Your task to perform on an android device: toggle show notifications on the lock screen Image 0: 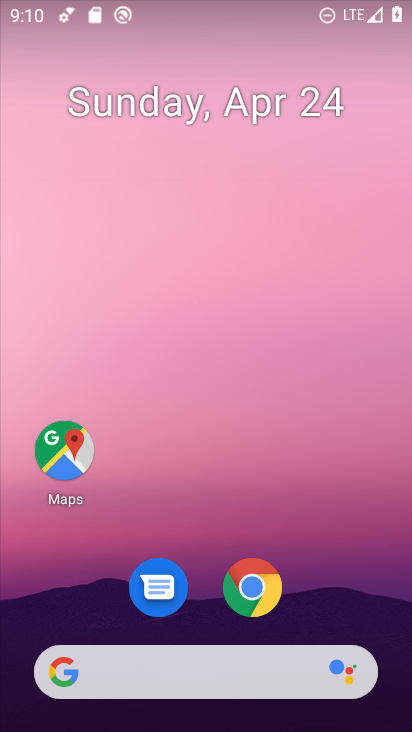
Step 0: drag from (400, 591) to (361, 200)
Your task to perform on an android device: toggle show notifications on the lock screen Image 1: 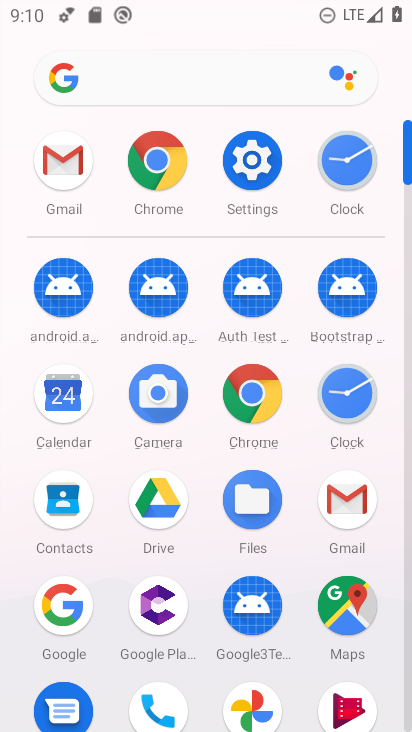
Step 1: click (256, 175)
Your task to perform on an android device: toggle show notifications on the lock screen Image 2: 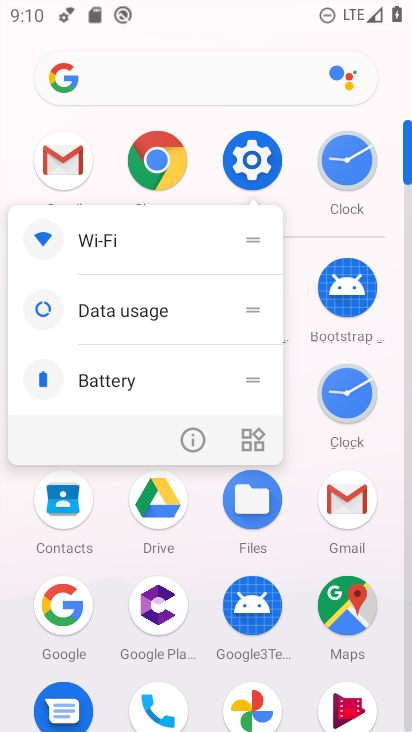
Step 2: click (256, 175)
Your task to perform on an android device: toggle show notifications on the lock screen Image 3: 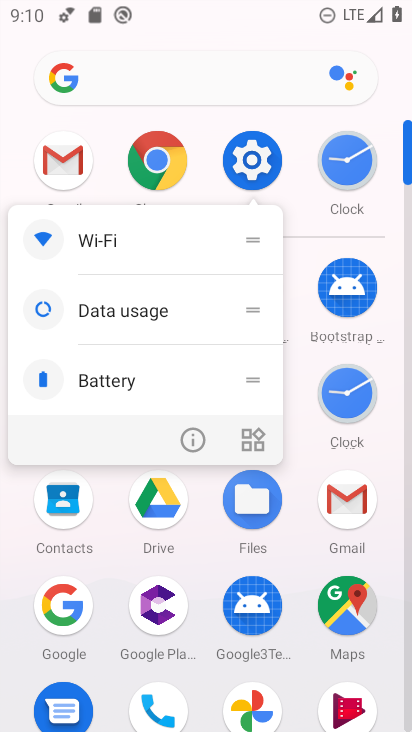
Step 3: click (265, 164)
Your task to perform on an android device: toggle show notifications on the lock screen Image 4: 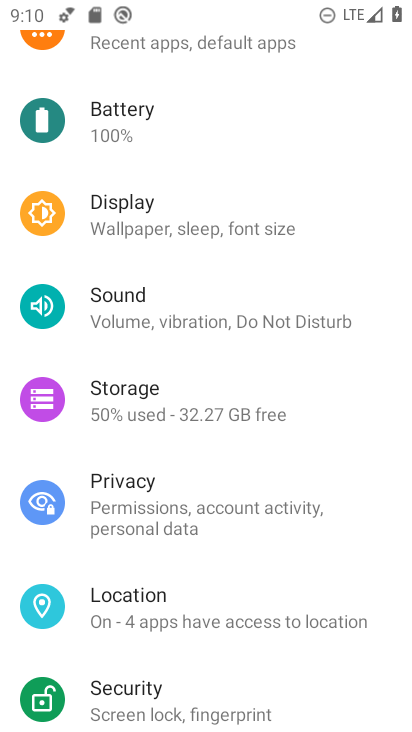
Step 4: drag from (338, 558) to (328, 224)
Your task to perform on an android device: toggle show notifications on the lock screen Image 5: 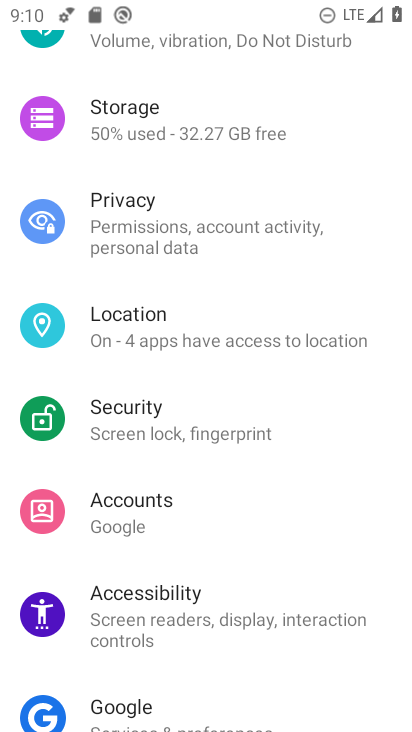
Step 5: drag from (255, 160) to (286, 503)
Your task to perform on an android device: toggle show notifications on the lock screen Image 6: 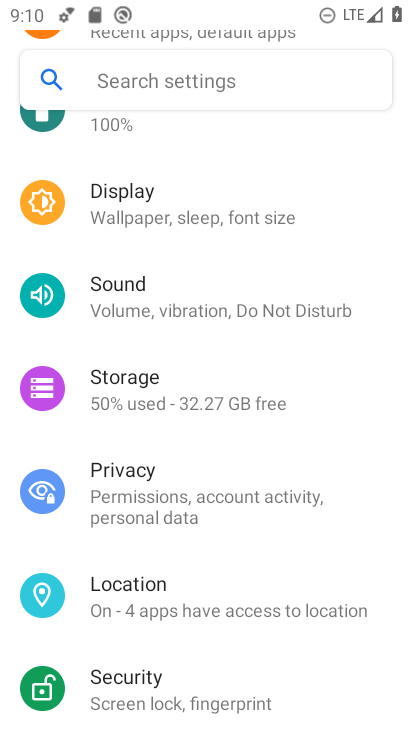
Step 6: drag from (250, 216) to (306, 535)
Your task to perform on an android device: toggle show notifications on the lock screen Image 7: 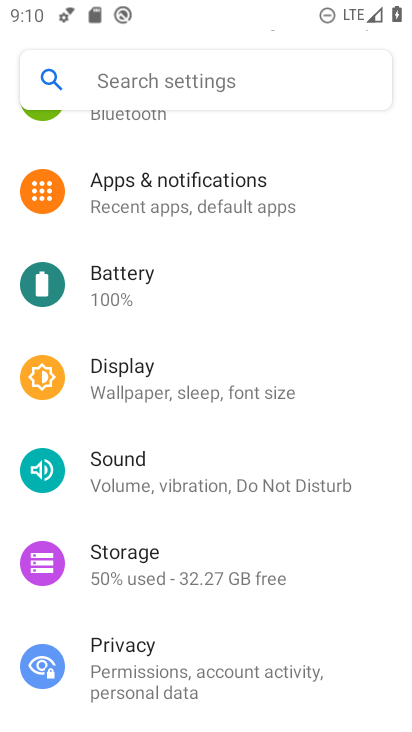
Step 7: click (223, 195)
Your task to perform on an android device: toggle show notifications on the lock screen Image 8: 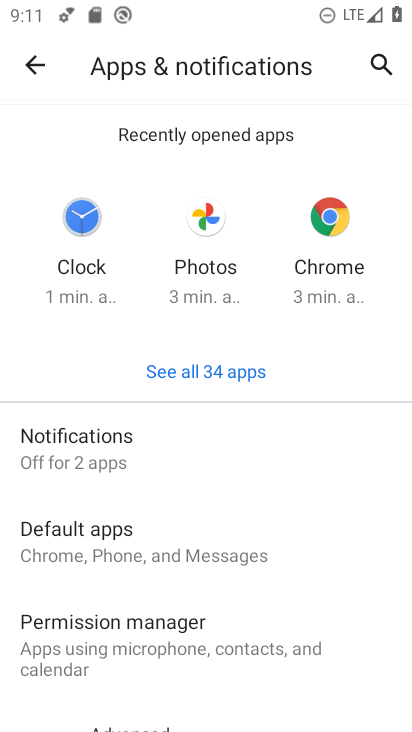
Step 8: click (120, 457)
Your task to perform on an android device: toggle show notifications on the lock screen Image 9: 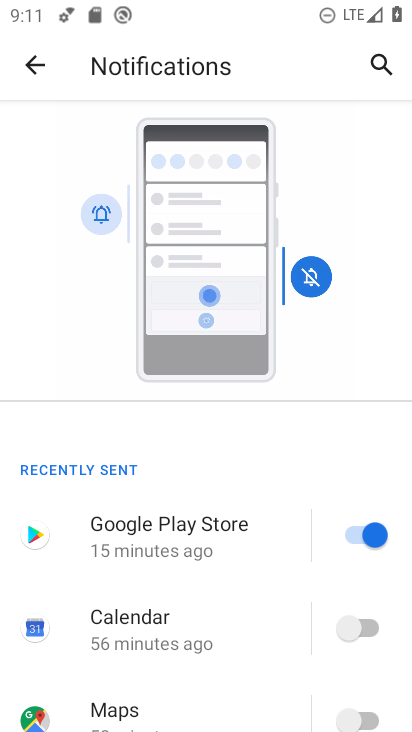
Step 9: drag from (251, 639) to (281, 357)
Your task to perform on an android device: toggle show notifications on the lock screen Image 10: 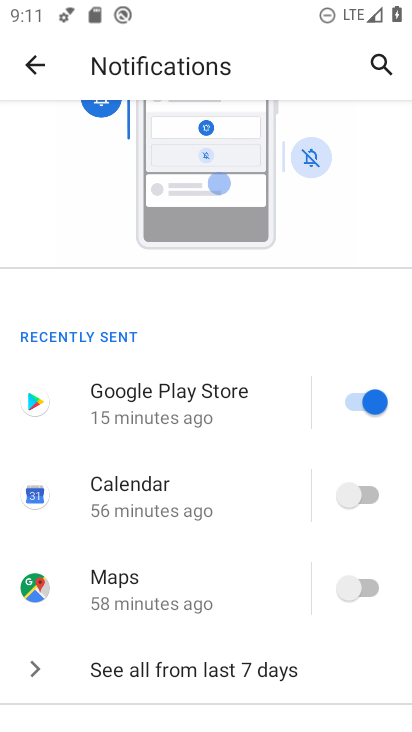
Step 10: drag from (265, 605) to (271, 325)
Your task to perform on an android device: toggle show notifications on the lock screen Image 11: 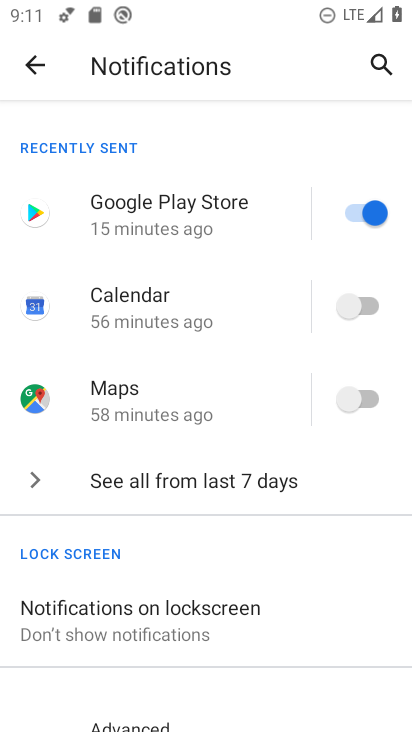
Step 11: click (160, 604)
Your task to perform on an android device: toggle show notifications on the lock screen Image 12: 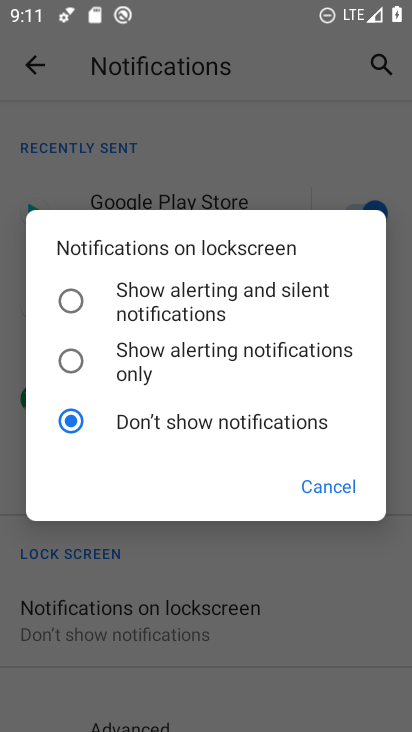
Step 12: click (68, 297)
Your task to perform on an android device: toggle show notifications on the lock screen Image 13: 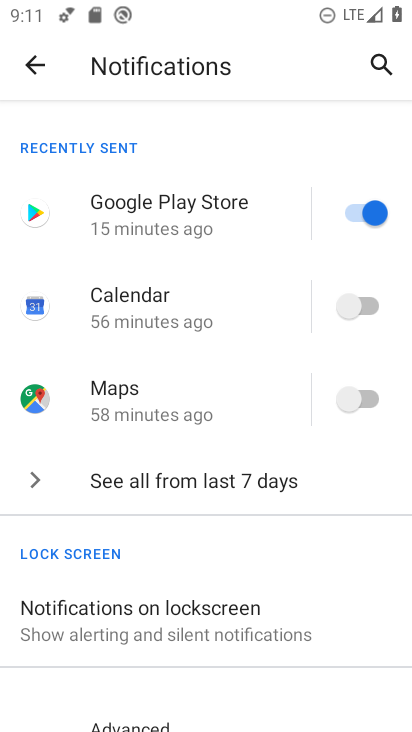
Step 13: task complete